Your task to perform on an android device: open chrome privacy settings Image 0: 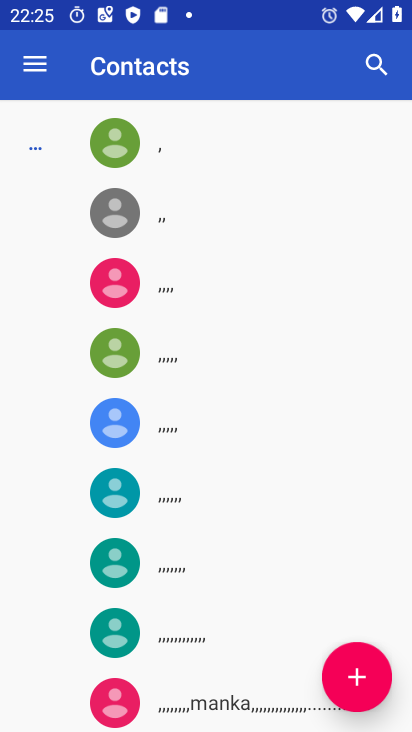
Step 0: press home button
Your task to perform on an android device: open chrome privacy settings Image 1: 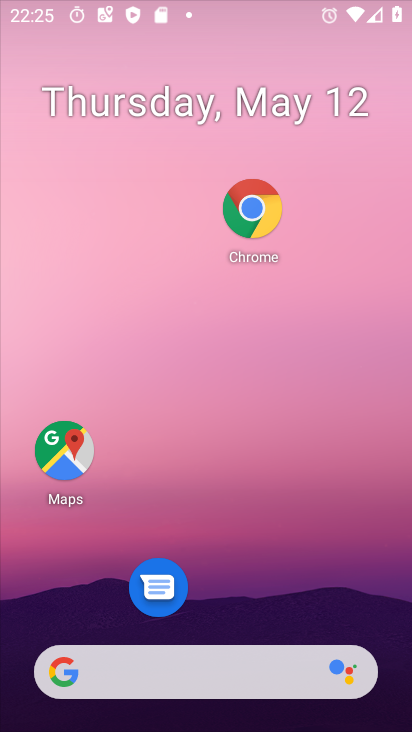
Step 1: drag from (305, 600) to (324, 240)
Your task to perform on an android device: open chrome privacy settings Image 2: 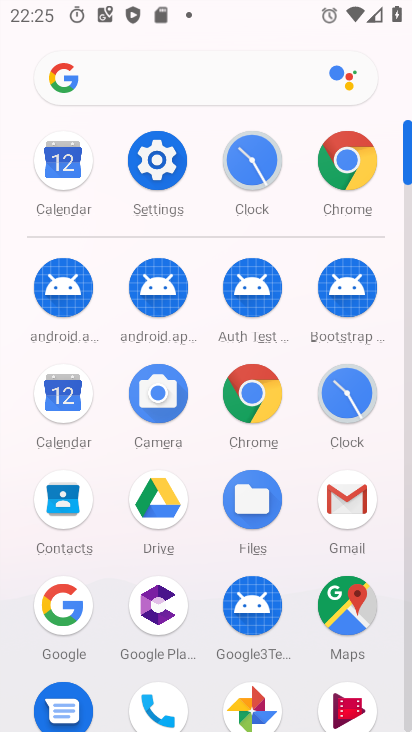
Step 2: click (354, 128)
Your task to perform on an android device: open chrome privacy settings Image 3: 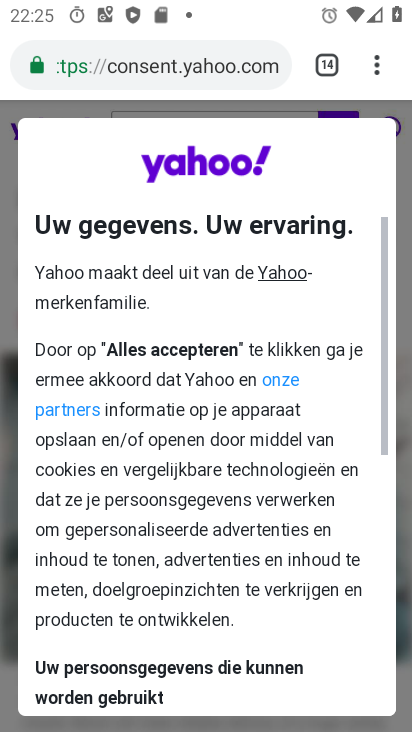
Step 3: click (365, 50)
Your task to perform on an android device: open chrome privacy settings Image 4: 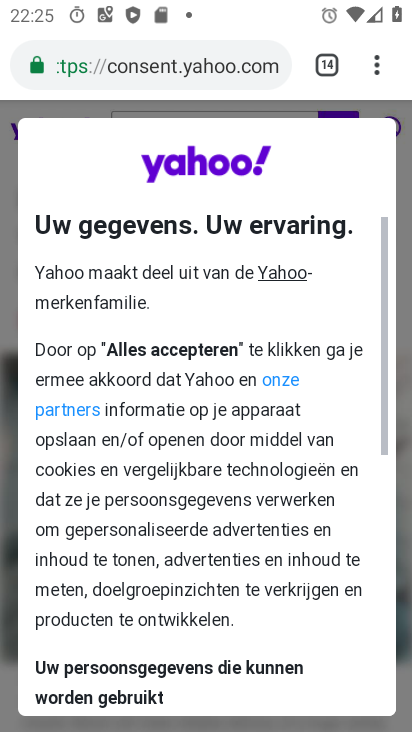
Step 4: click (360, 57)
Your task to perform on an android device: open chrome privacy settings Image 5: 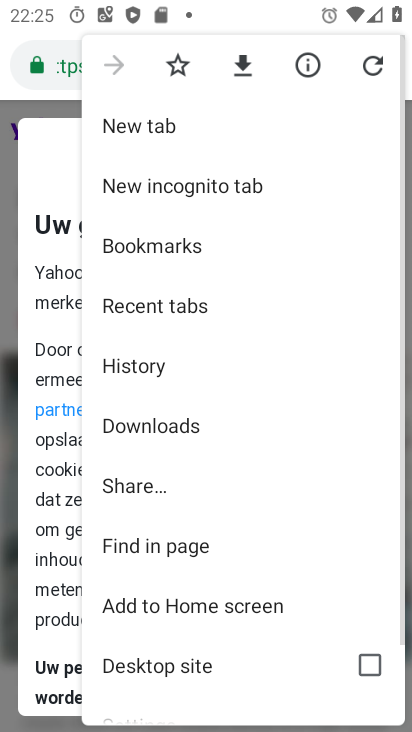
Step 5: drag from (201, 589) to (245, 190)
Your task to perform on an android device: open chrome privacy settings Image 6: 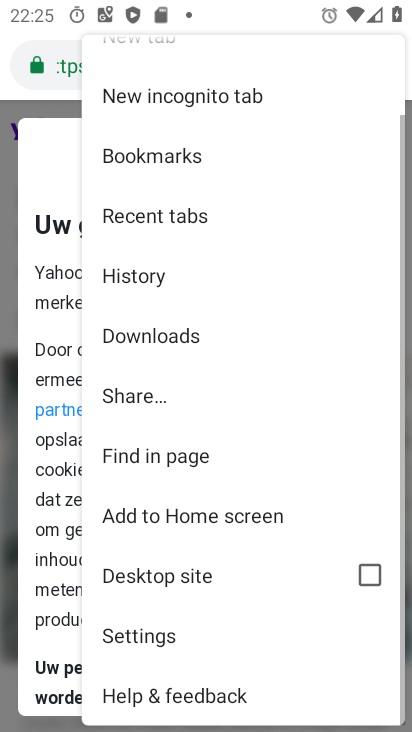
Step 6: click (124, 627)
Your task to perform on an android device: open chrome privacy settings Image 7: 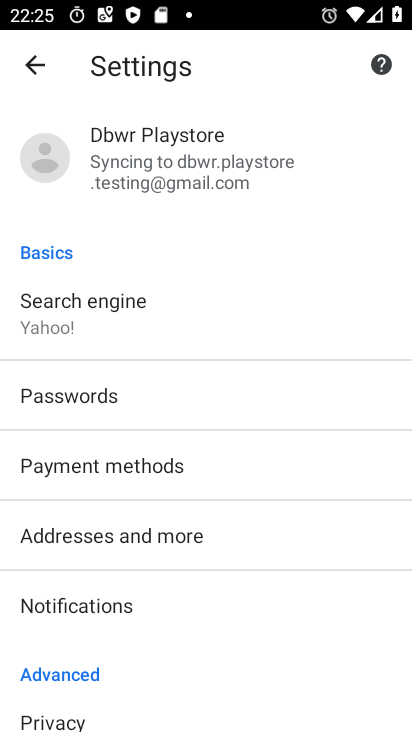
Step 7: drag from (173, 658) to (261, 266)
Your task to perform on an android device: open chrome privacy settings Image 8: 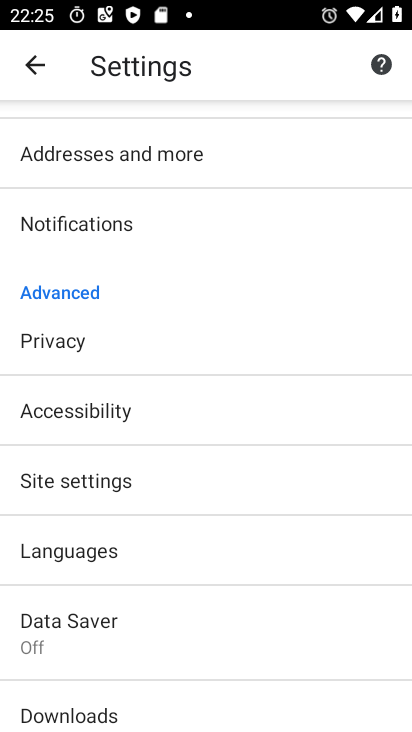
Step 8: drag from (200, 576) to (183, 272)
Your task to perform on an android device: open chrome privacy settings Image 9: 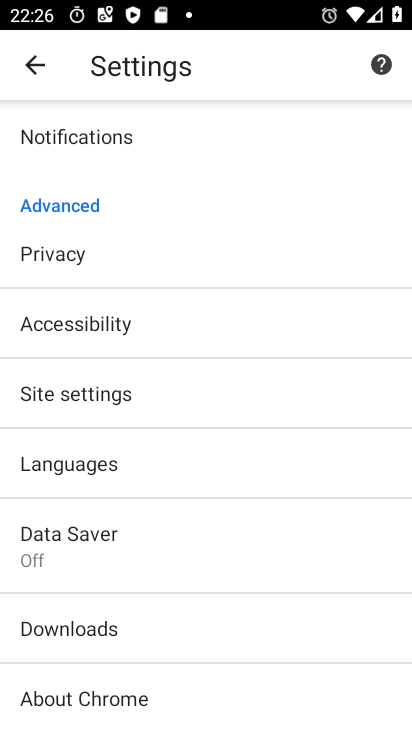
Step 9: click (136, 246)
Your task to perform on an android device: open chrome privacy settings Image 10: 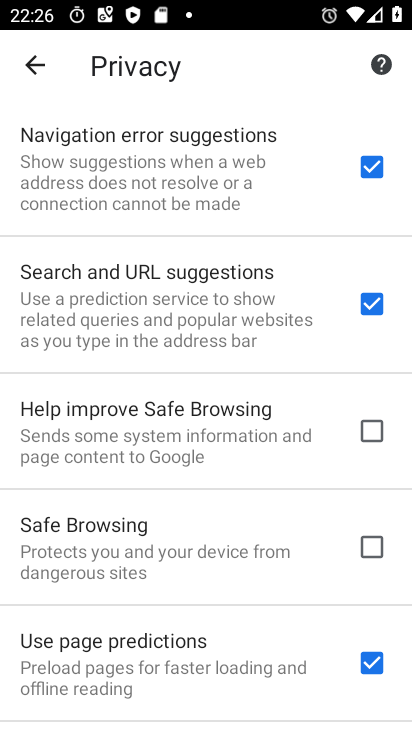
Step 10: task complete